Your task to perform on an android device: toggle wifi Image 0: 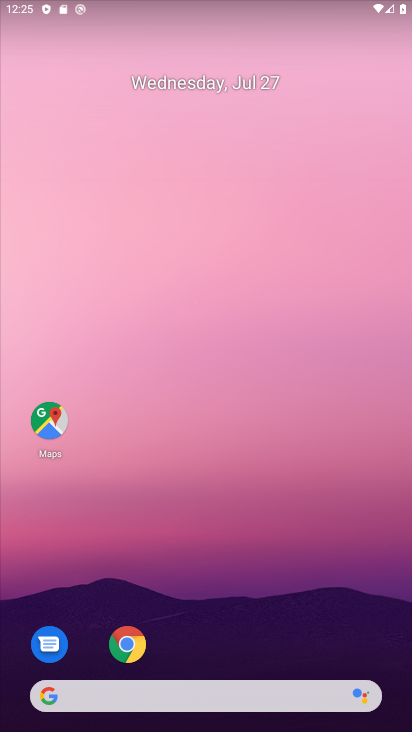
Step 0: drag from (185, 657) to (207, 0)
Your task to perform on an android device: toggle wifi Image 1: 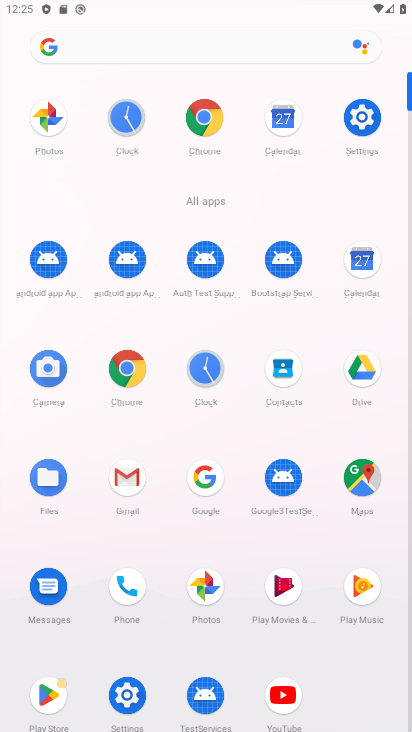
Step 1: click (356, 138)
Your task to perform on an android device: toggle wifi Image 2: 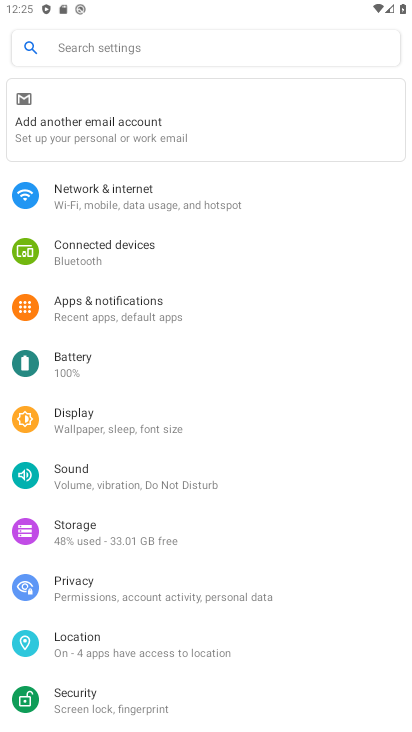
Step 2: click (130, 201)
Your task to perform on an android device: toggle wifi Image 3: 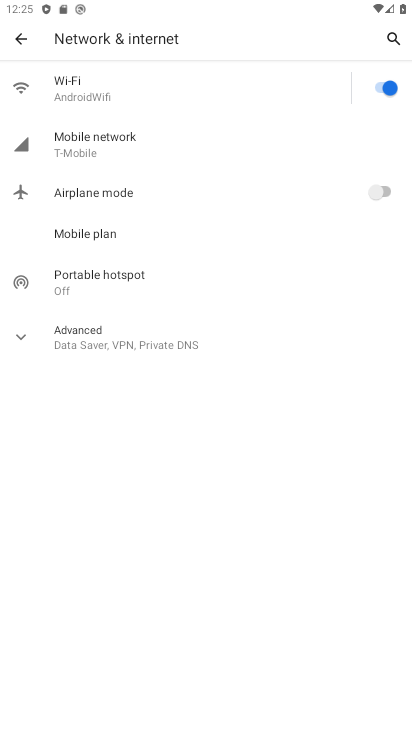
Step 3: click (363, 80)
Your task to perform on an android device: toggle wifi Image 4: 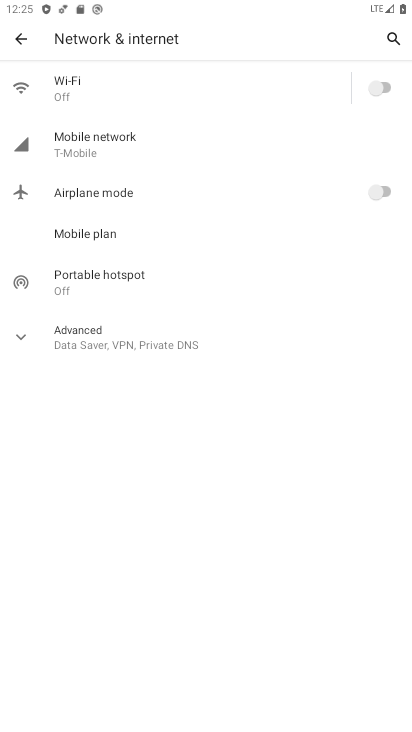
Step 4: task complete